Your task to perform on an android device: turn pop-ups on in chrome Image 0: 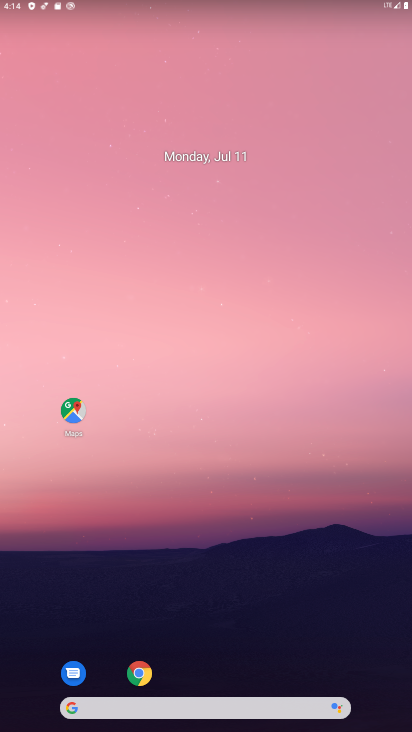
Step 0: drag from (247, 652) to (245, 216)
Your task to perform on an android device: turn pop-ups on in chrome Image 1: 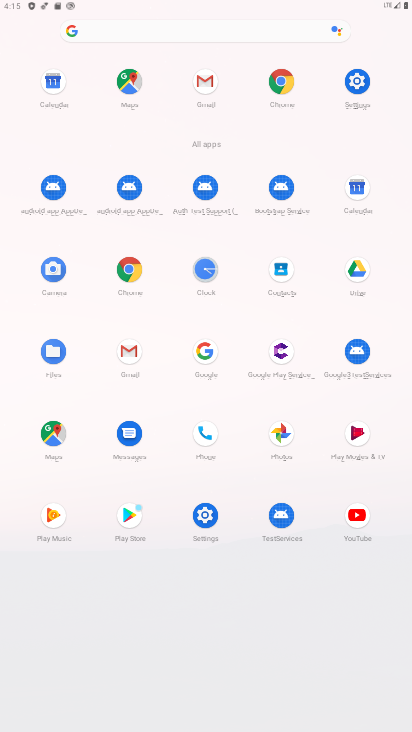
Step 1: click (274, 88)
Your task to perform on an android device: turn pop-ups on in chrome Image 2: 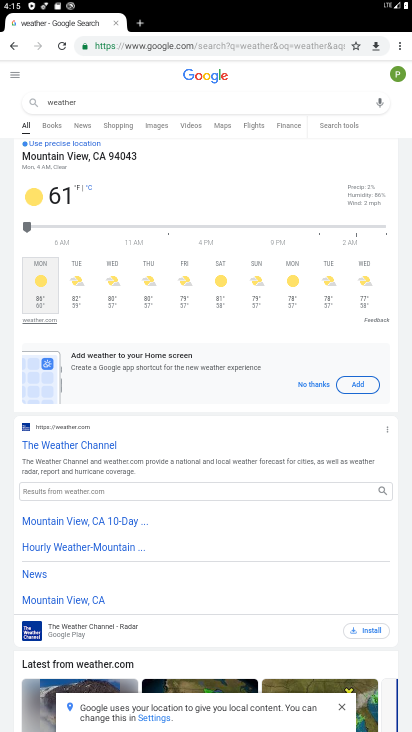
Step 2: drag from (400, 41) to (306, 283)
Your task to perform on an android device: turn pop-ups on in chrome Image 3: 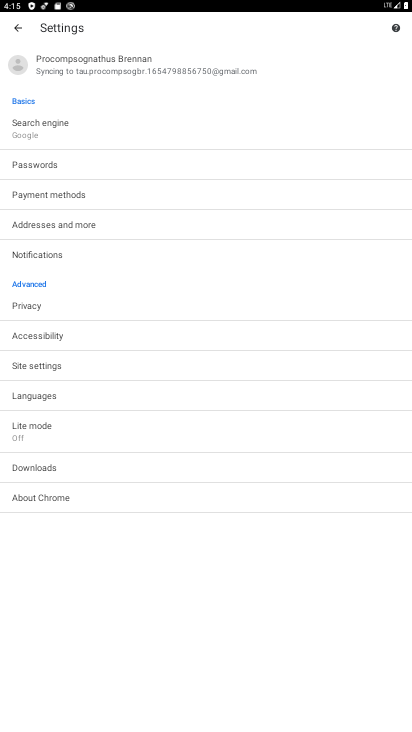
Step 3: click (69, 361)
Your task to perform on an android device: turn pop-ups on in chrome Image 4: 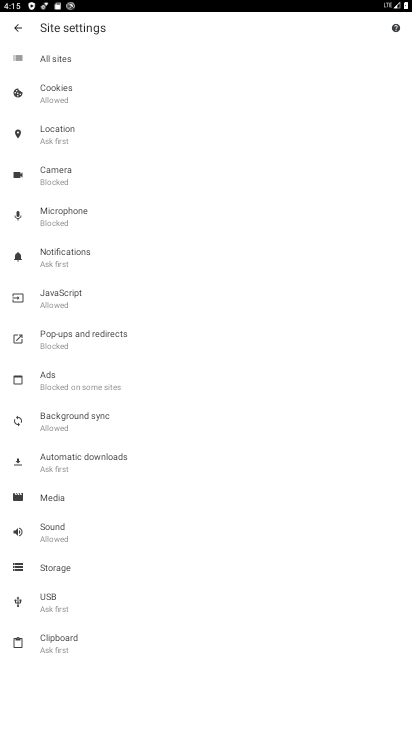
Step 4: click (82, 337)
Your task to perform on an android device: turn pop-ups on in chrome Image 5: 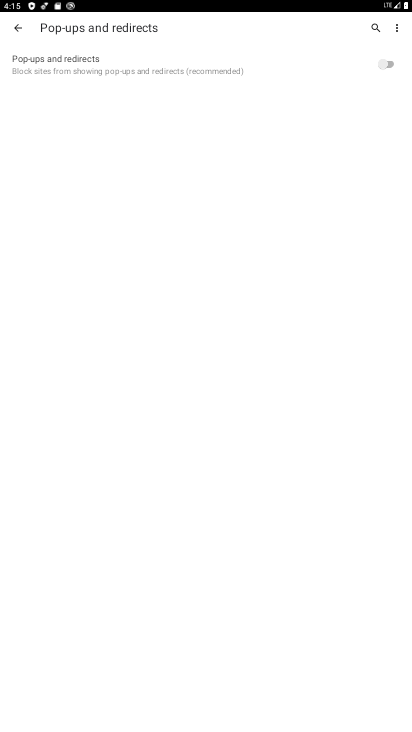
Step 5: click (378, 66)
Your task to perform on an android device: turn pop-ups on in chrome Image 6: 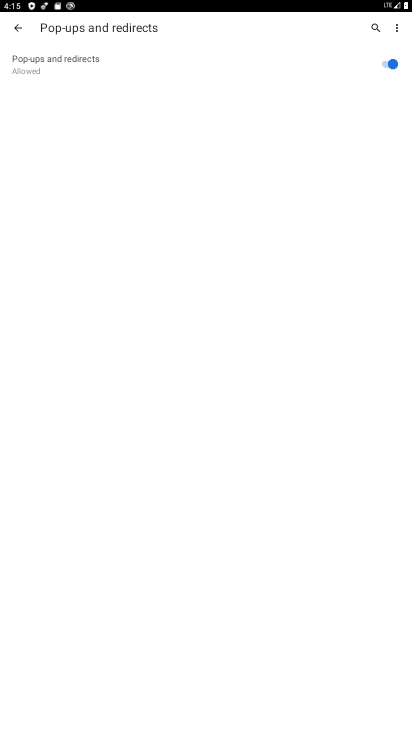
Step 6: task complete